Your task to perform on an android device: empty trash in google photos Image 0: 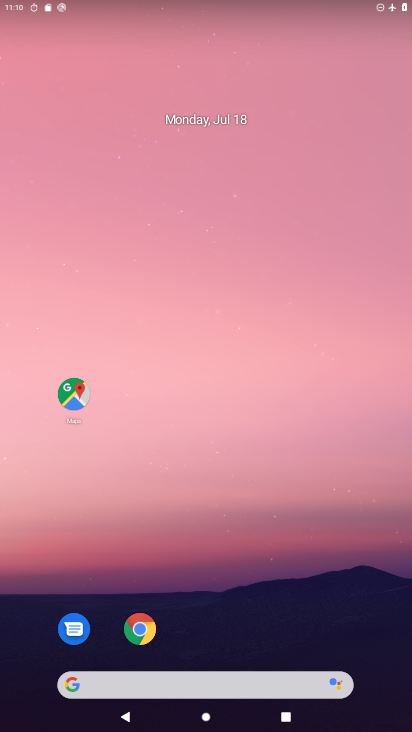
Step 0: drag from (347, 648) to (277, 169)
Your task to perform on an android device: empty trash in google photos Image 1: 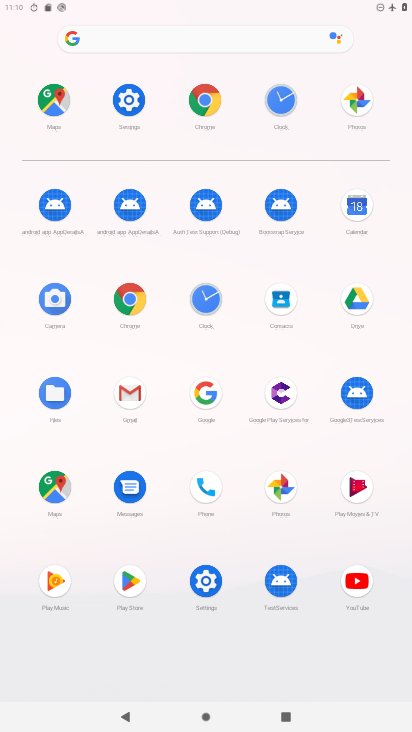
Step 1: click (287, 490)
Your task to perform on an android device: empty trash in google photos Image 2: 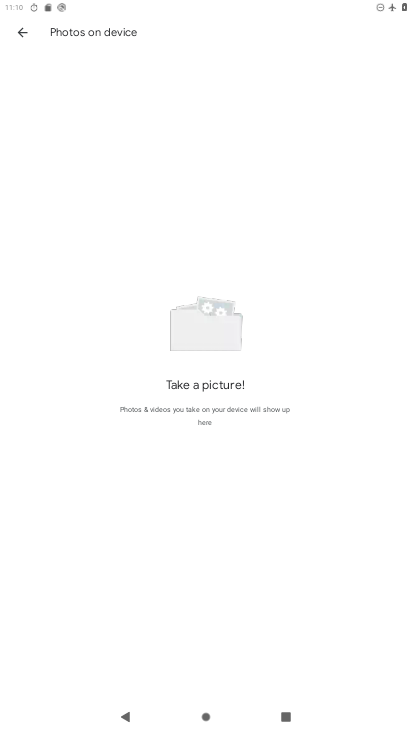
Step 2: click (29, 35)
Your task to perform on an android device: empty trash in google photos Image 3: 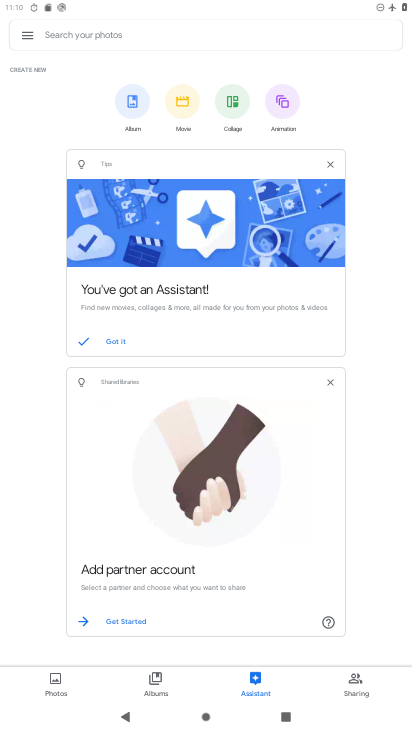
Step 3: click (29, 35)
Your task to perform on an android device: empty trash in google photos Image 4: 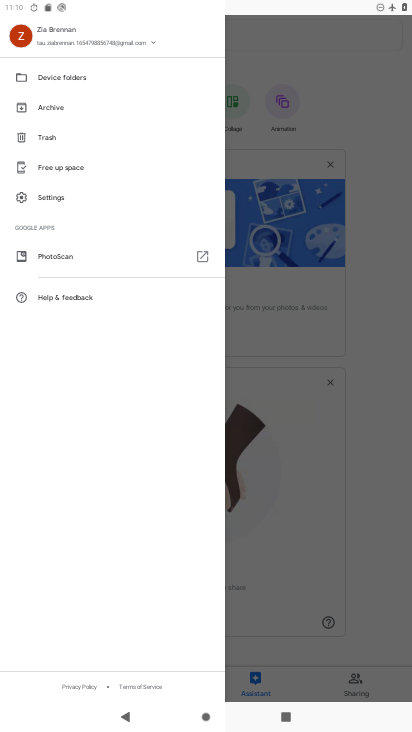
Step 4: click (51, 136)
Your task to perform on an android device: empty trash in google photos Image 5: 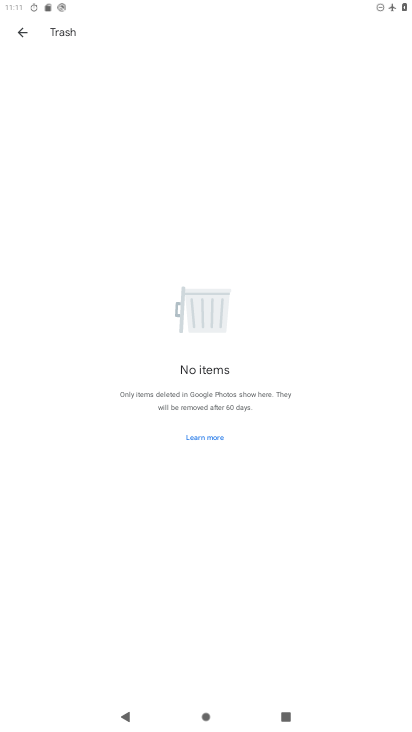
Step 5: task complete